Your task to perform on an android device: choose inbox layout in the gmail app Image 0: 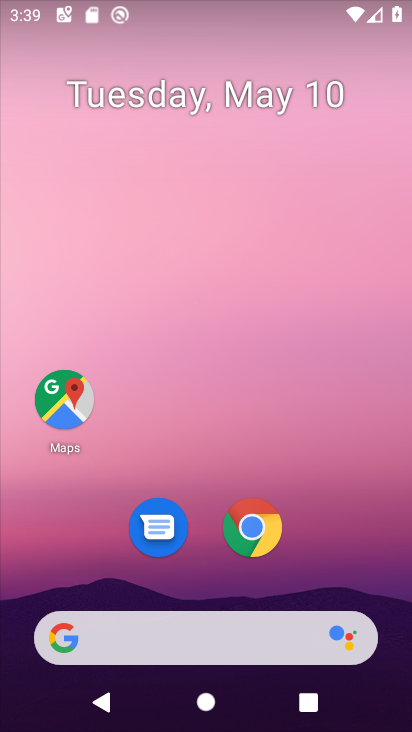
Step 0: drag from (366, 333) to (362, 228)
Your task to perform on an android device: choose inbox layout in the gmail app Image 1: 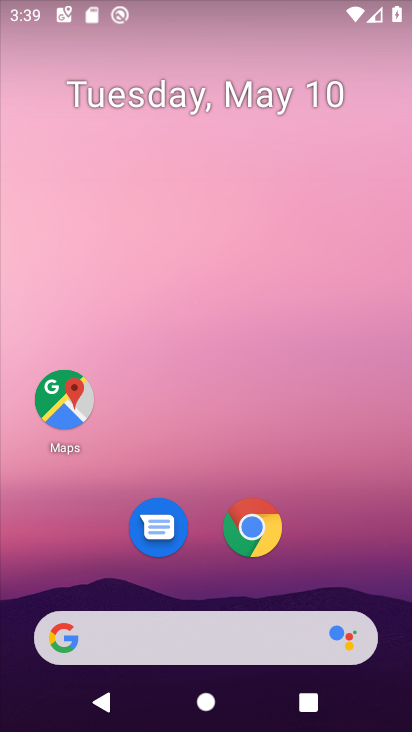
Step 1: drag from (395, 607) to (368, 201)
Your task to perform on an android device: choose inbox layout in the gmail app Image 2: 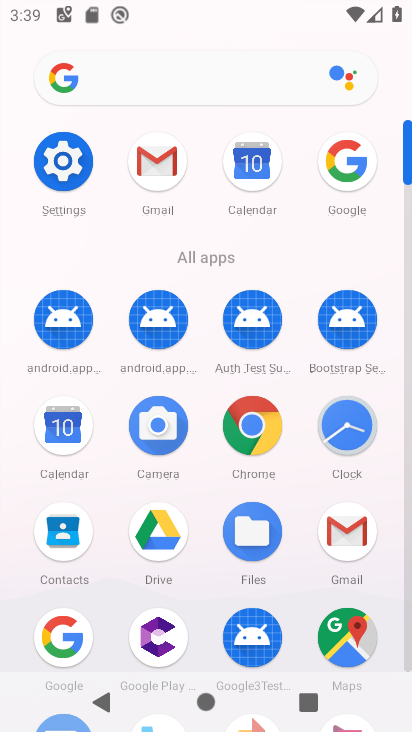
Step 2: click (356, 536)
Your task to perform on an android device: choose inbox layout in the gmail app Image 3: 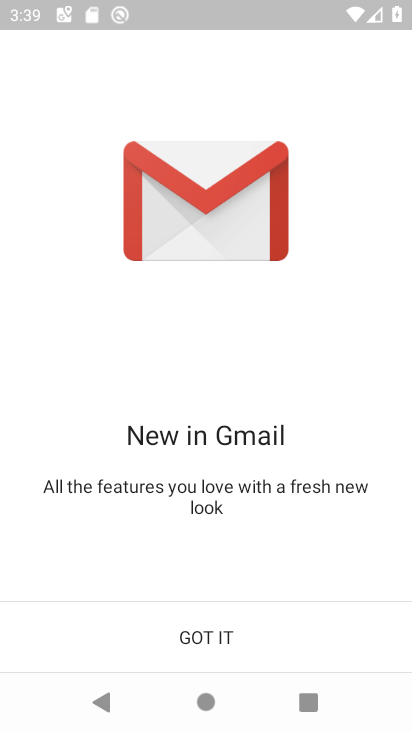
Step 3: click (205, 641)
Your task to perform on an android device: choose inbox layout in the gmail app Image 4: 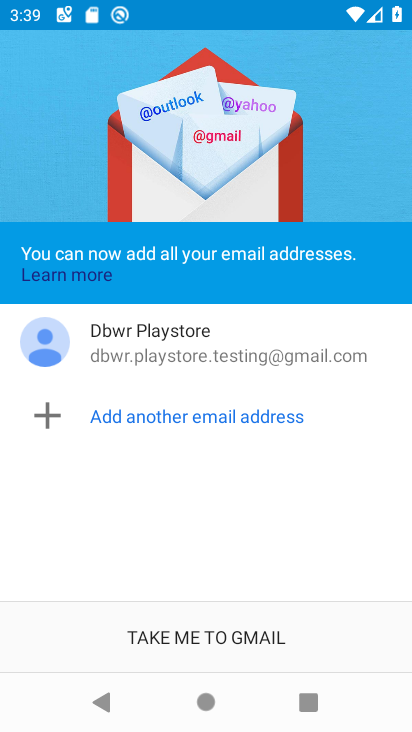
Step 4: click (219, 636)
Your task to perform on an android device: choose inbox layout in the gmail app Image 5: 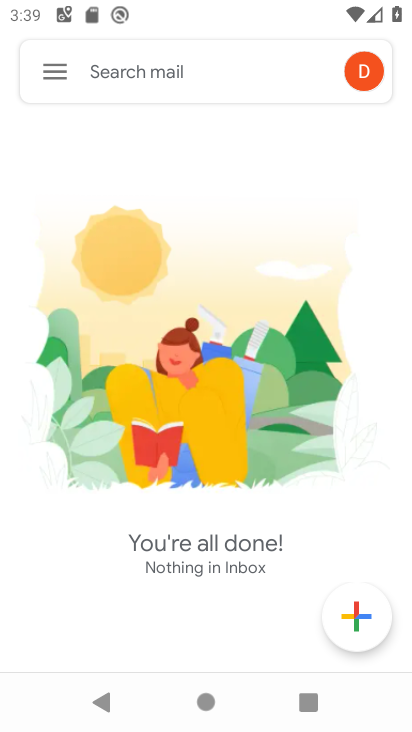
Step 5: click (51, 67)
Your task to perform on an android device: choose inbox layout in the gmail app Image 6: 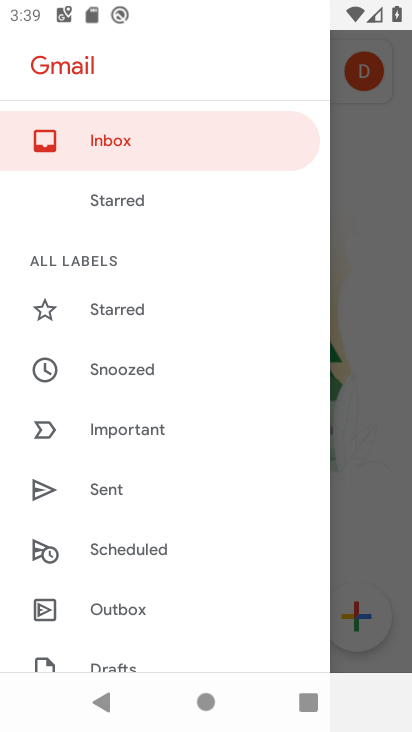
Step 6: drag from (224, 616) to (209, 292)
Your task to perform on an android device: choose inbox layout in the gmail app Image 7: 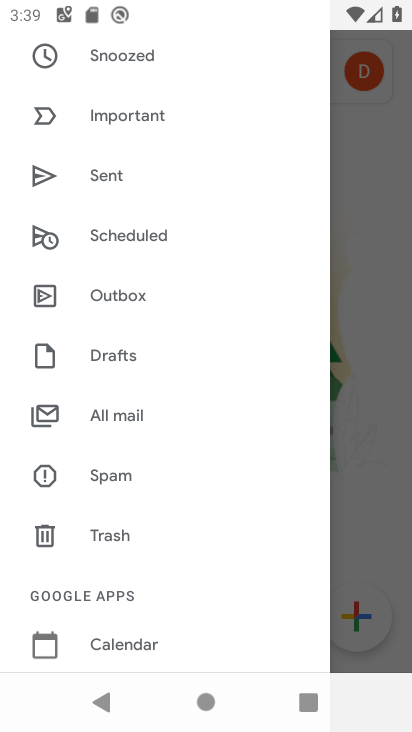
Step 7: drag from (242, 660) to (239, 299)
Your task to perform on an android device: choose inbox layout in the gmail app Image 8: 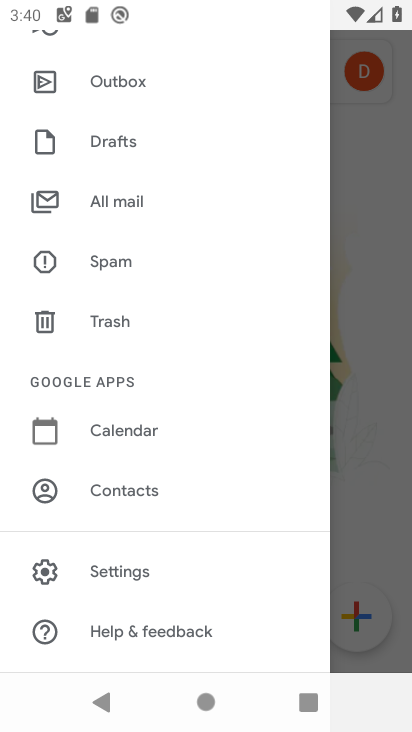
Step 8: click (115, 566)
Your task to perform on an android device: choose inbox layout in the gmail app Image 9: 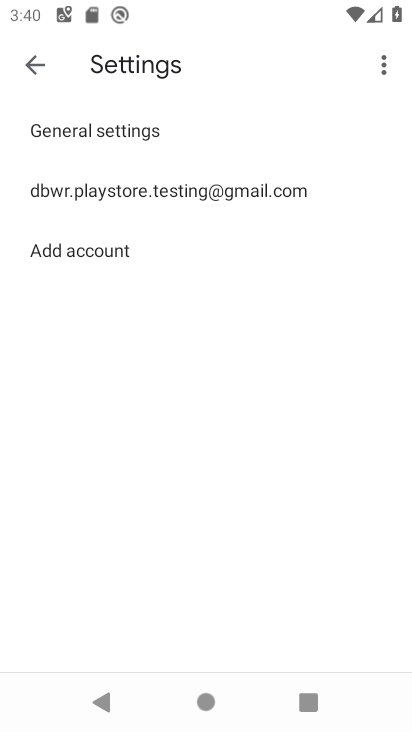
Step 9: click (104, 192)
Your task to perform on an android device: choose inbox layout in the gmail app Image 10: 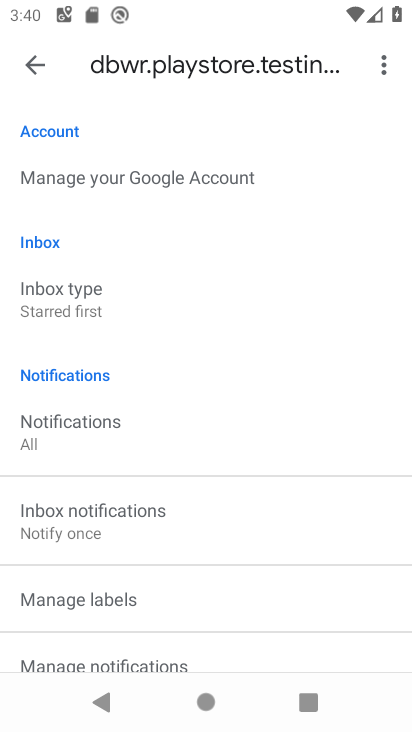
Step 10: click (37, 294)
Your task to perform on an android device: choose inbox layout in the gmail app Image 11: 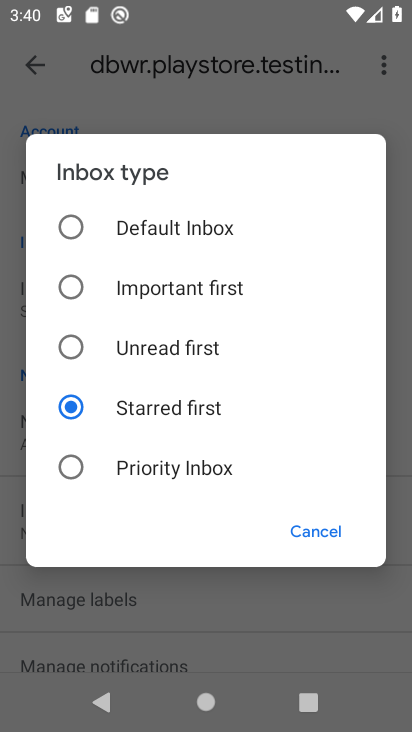
Step 11: click (72, 340)
Your task to perform on an android device: choose inbox layout in the gmail app Image 12: 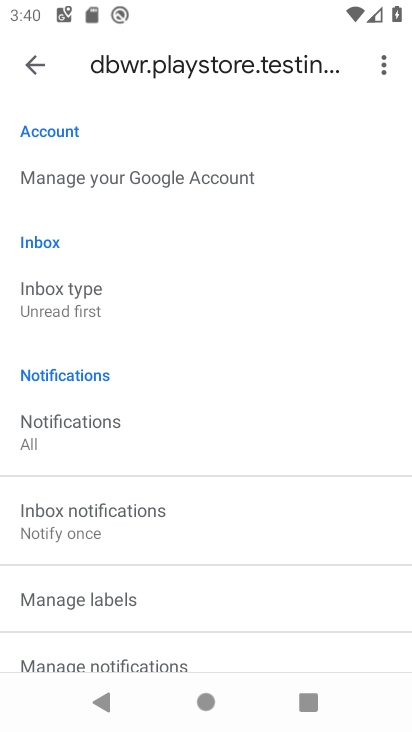
Step 12: task complete